Your task to perform on an android device: What's the weather going to be tomorrow? Image 0: 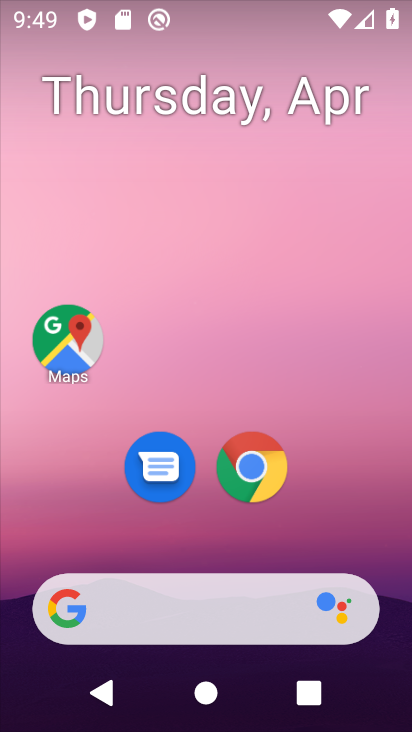
Step 0: drag from (391, 573) to (347, 181)
Your task to perform on an android device: What's the weather going to be tomorrow? Image 1: 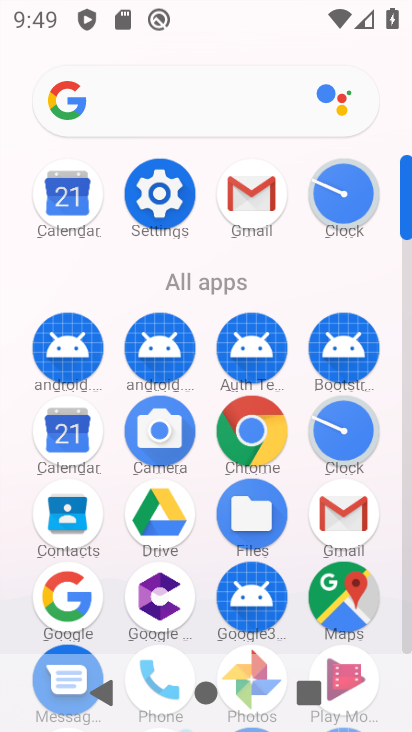
Step 1: click (258, 436)
Your task to perform on an android device: What's the weather going to be tomorrow? Image 2: 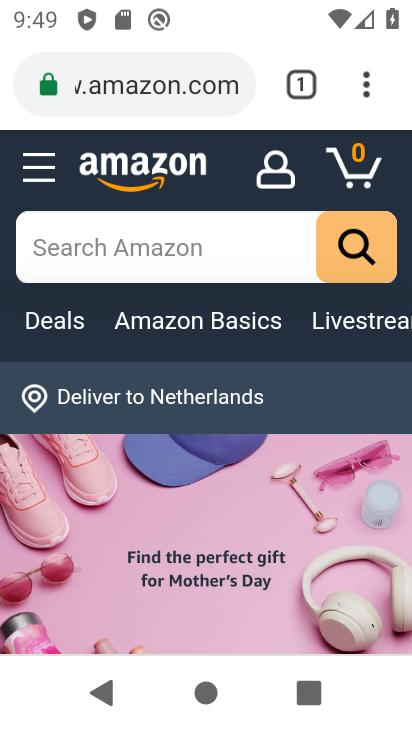
Step 2: click (162, 85)
Your task to perform on an android device: What's the weather going to be tomorrow? Image 3: 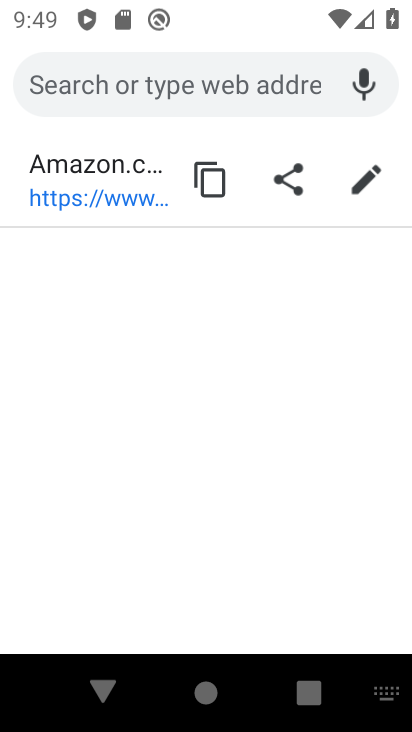
Step 3: type "What's the weather going to be tomorrow?"
Your task to perform on an android device: What's the weather going to be tomorrow? Image 4: 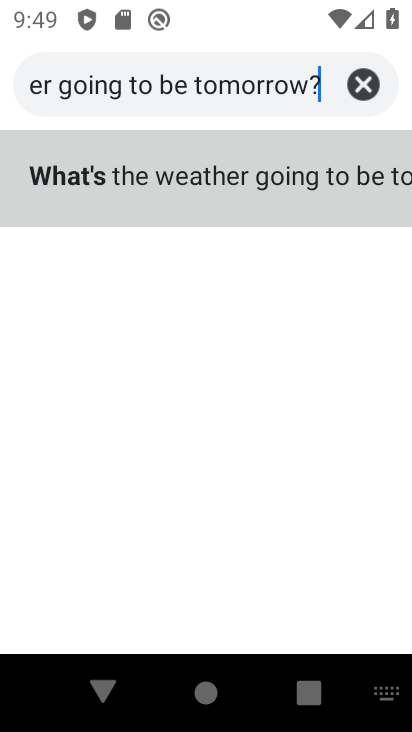
Step 4: press enter
Your task to perform on an android device: What's the weather going to be tomorrow? Image 5: 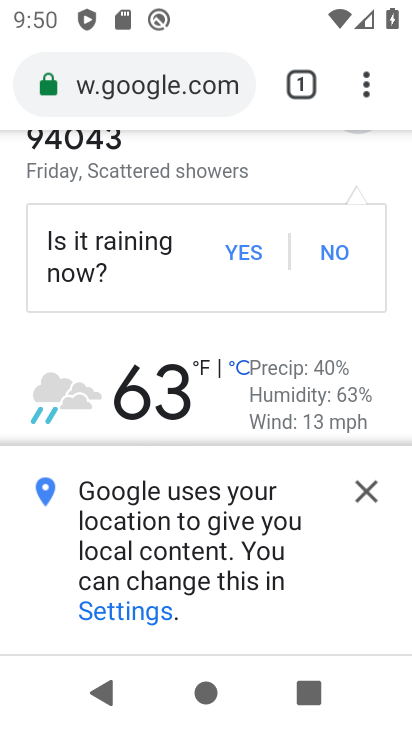
Step 5: task complete